Your task to perform on an android device: turn pop-ups on in chrome Image 0: 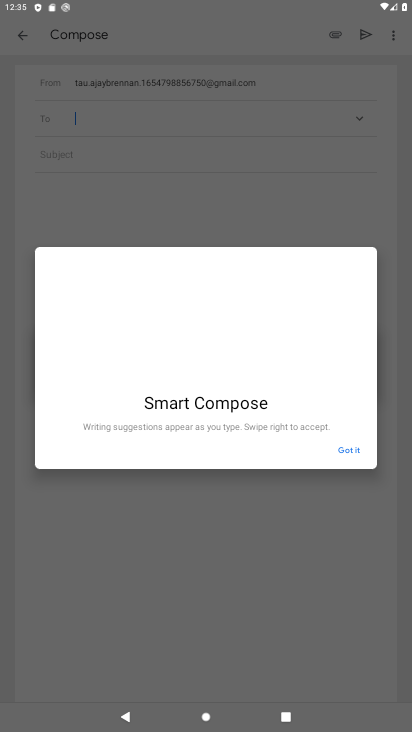
Step 0: press home button
Your task to perform on an android device: turn pop-ups on in chrome Image 1: 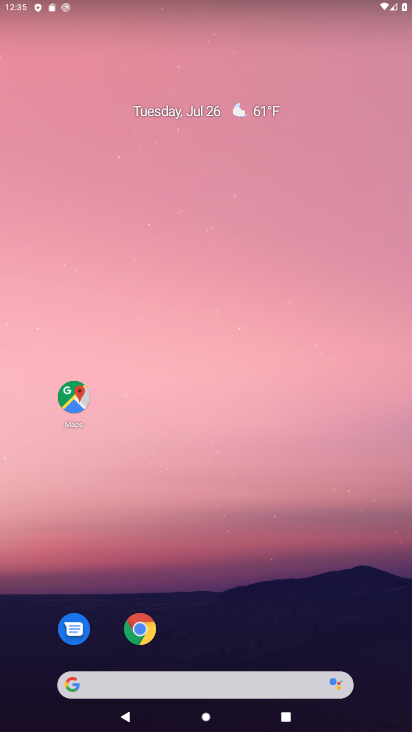
Step 1: click (150, 637)
Your task to perform on an android device: turn pop-ups on in chrome Image 2: 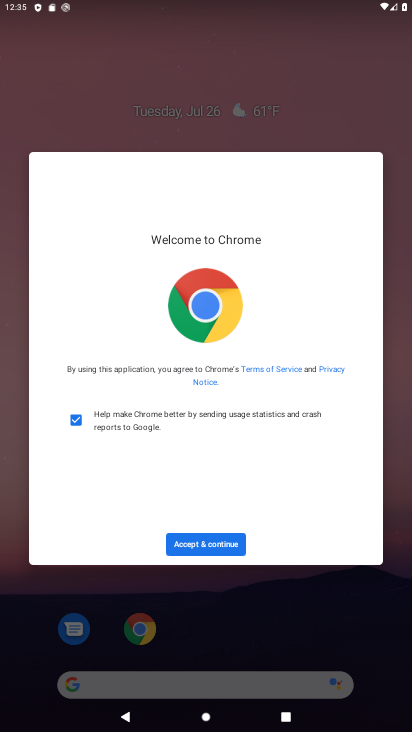
Step 2: click (188, 557)
Your task to perform on an android device: turn pop-ups on in chrome Image 3: 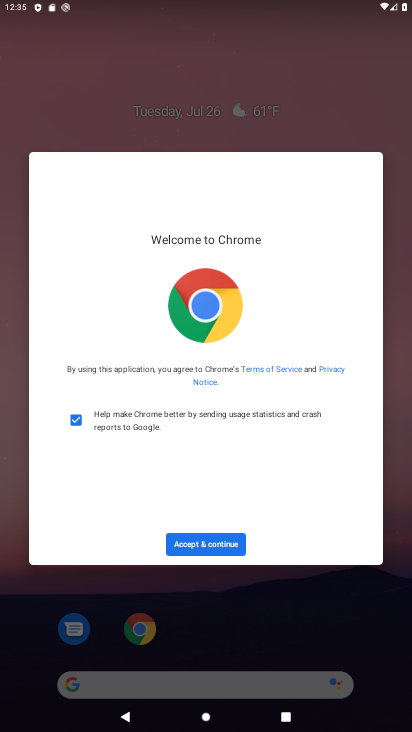
Step 3: click (197, 540)
Your task to perform on an android device: turn pop-ups on in chrome Image 4: 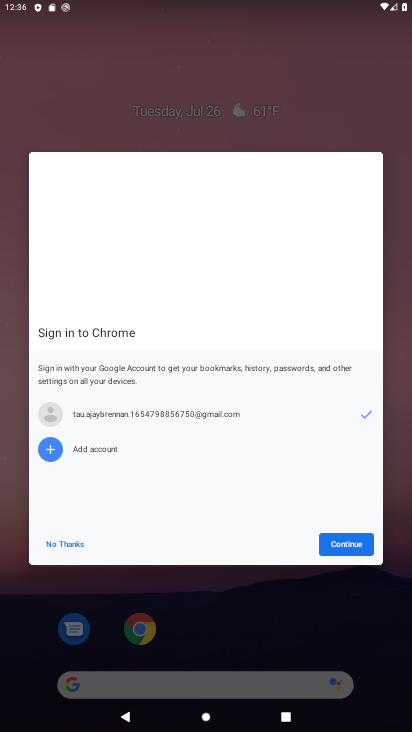
Step 4: click (332, 546)
Your task to perform on an android device: turn pop-ups on in chrome Image 5: 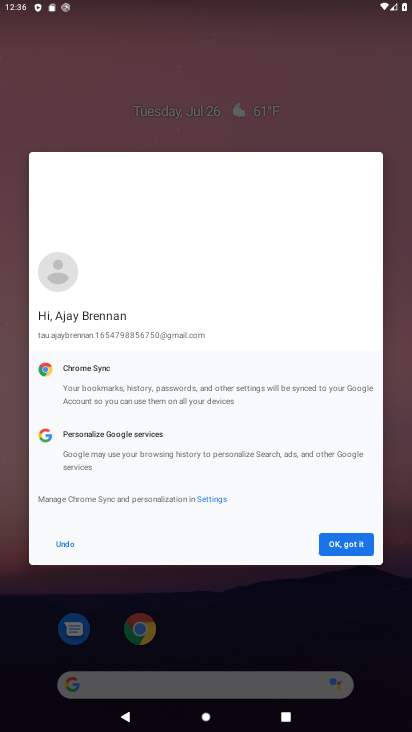
Step 5: click (333, 544)
Your task to perform on an android device: turn pop-ups on in chrome Image 6: 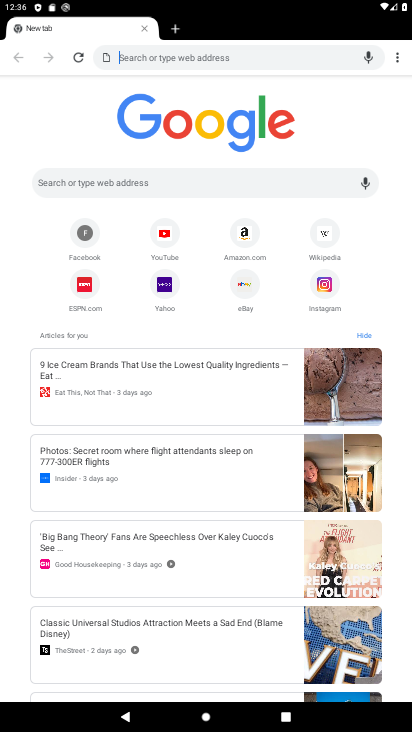
Step 6: click (400, 53)
Your task to perform on an android device: turn pop-ups on in chrome Image 7: 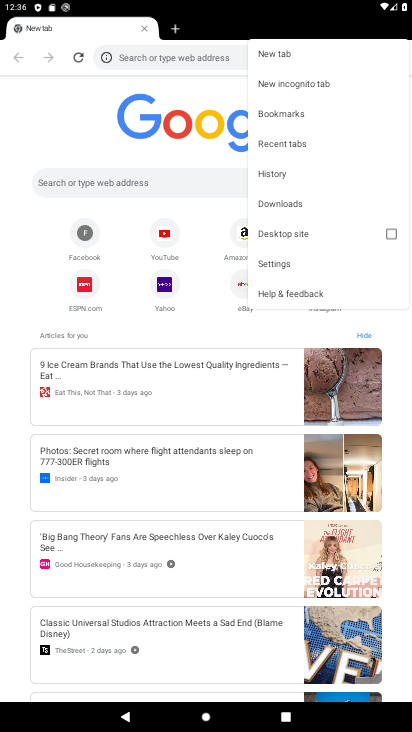
Step 7: click (282, 257)
Your task to perform on an android device: turn pop-ups on in chrome Image 8: 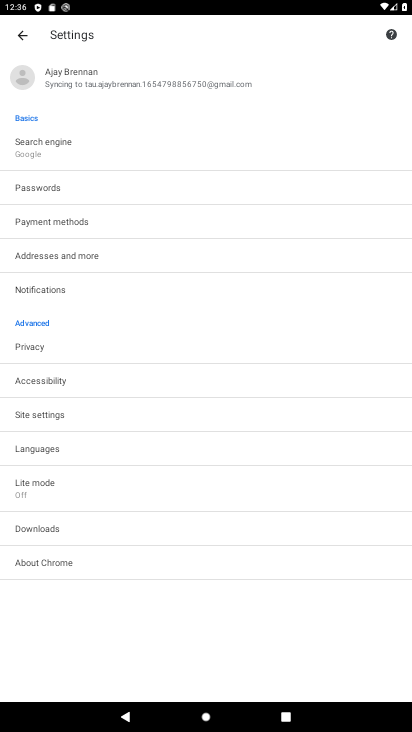
Step 8: click (42, 413)
Your task to perform on an android device: turn pop-ups on in chrome Image 9: 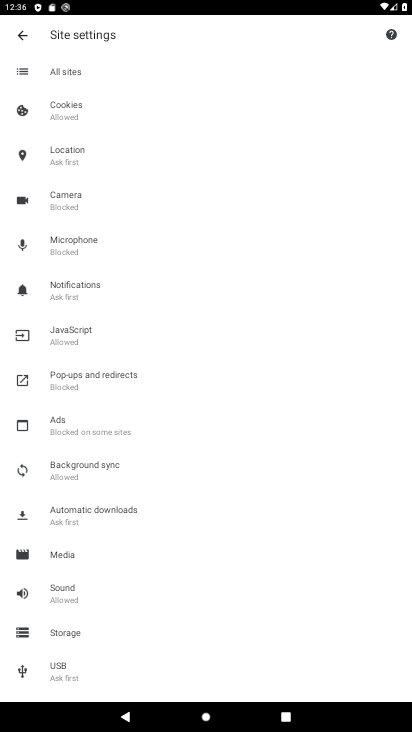
Step 9: click (106, 379)
Your task to perform on an android device: turn pop-ups on in chrome Image 10: 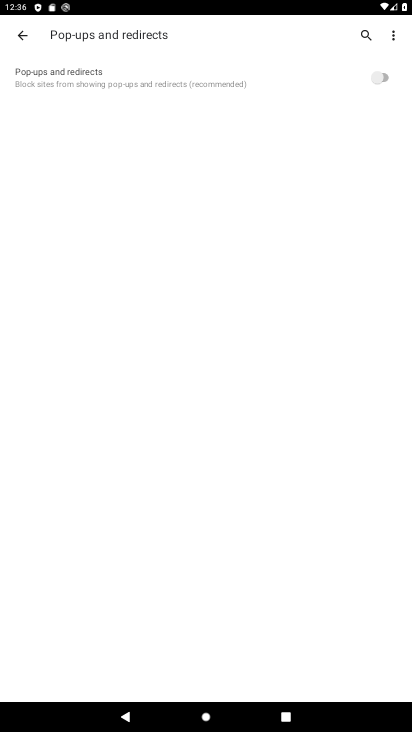
Step 10: click (379, 78)
Your task to perform on an android device: turn pop-ups on in chrome Image 11: 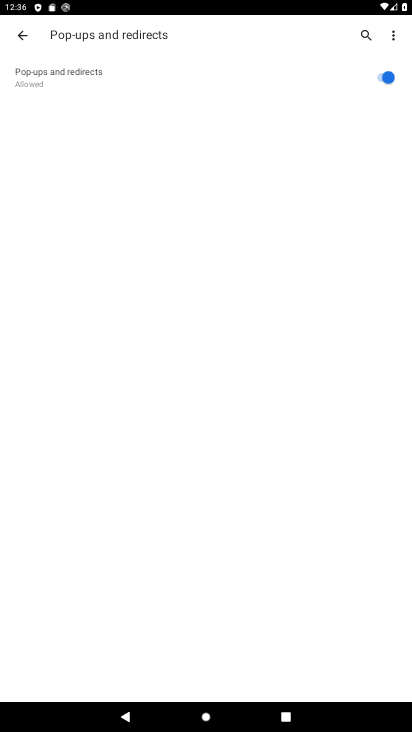
Step 11: task complete